Your task to perform on an android device: Empty the shopping cart on bestbuy.com. Search for razer kraken on bestbuy.com, select the first entry, add it to the cart, then select checkout. Image 0: 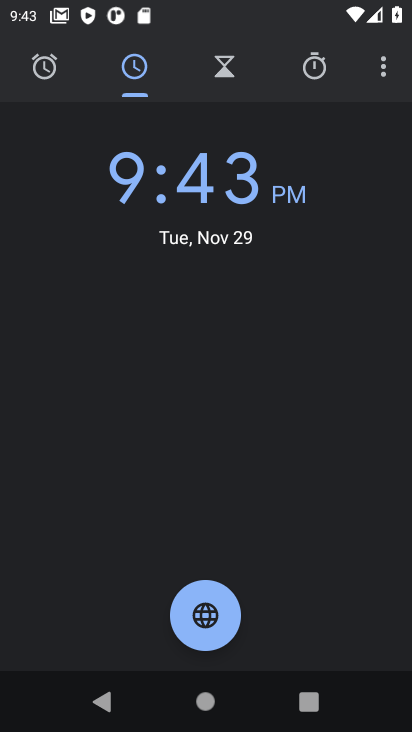
Step 0: press home button
Your task to perform on an android device: Empty the shopping cart on bestbuy.com. Search for razer kraken on bestbuy.com, select the first entry, add it to the cart, then select checkout. Image 1: 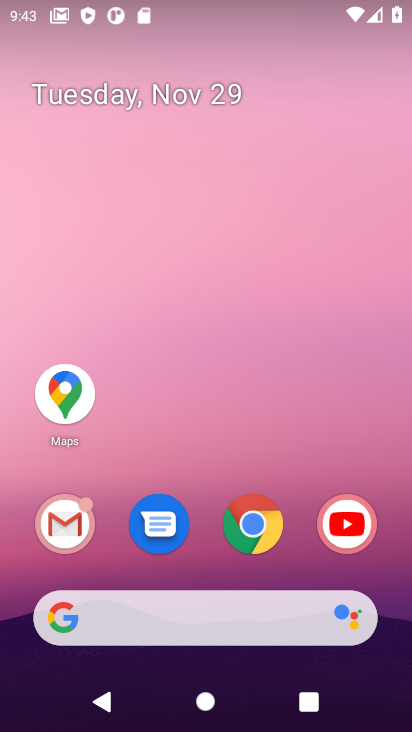
Step 1: click (258, 528)
Your task to perform on an android device: Empty the shopping cart on bestbuy.com. Search for razer kraken on bestbuy.com, select the first entry, add it to the cart, then select checkout. Image 2: 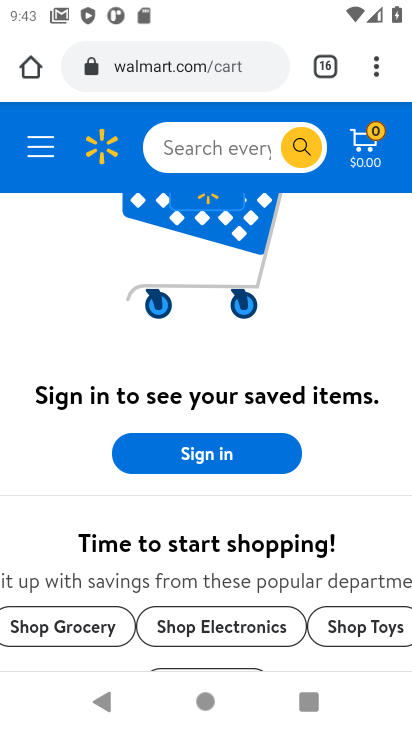
Step 2: click (167, 66)
Your task to perform on an android device: Empty the shopping cart on bestbuy.com. Search for razer kraken on bestbuy.com, select the first entry, add it to the cart, then select checkout. Image 3: 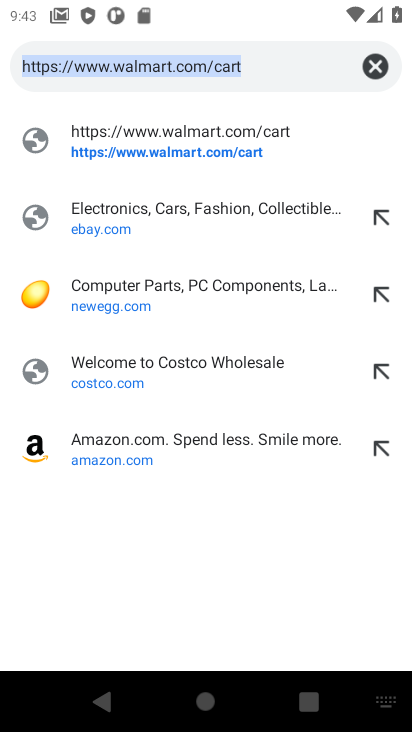
Step 3: type "bestbuy.com"
Your task to perform on an android device: Empty the shopping cart on bestbuy.com. Search for razer kraken on bestbuy.com, select the first entry, add it to the cart, then select checkout. Image 4: 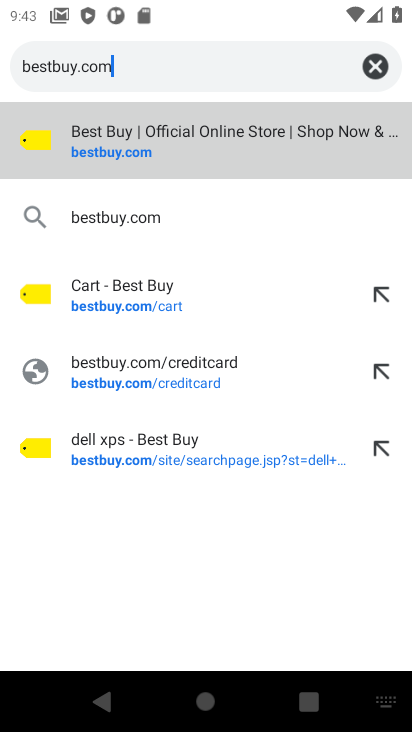
Step 4: click (95, 150)
Your task to perform on an android device: Empty the shopping cart on bestbuy.com. Search for razer kraken on bestbuy.com, select the first entry, add it to the cart, then select checkout. Image 5: 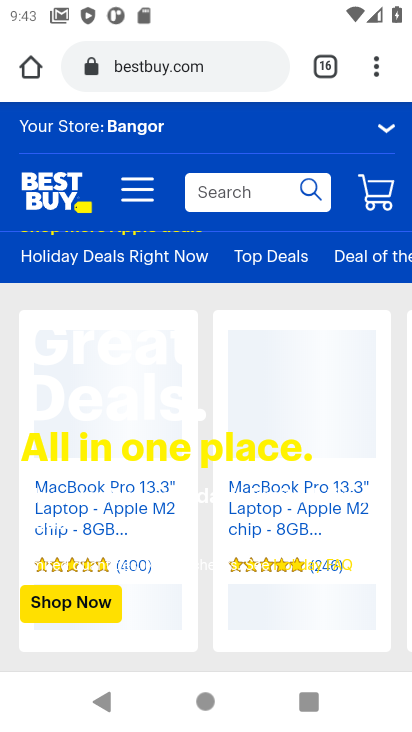
Step 5: click (383, 201)
Your task to perform on an android device: Empty the shopping cart on bestbuy.com. Search for razer kraken on bestbuy.com, select the first entry, add it to the cart, then select checkout. Image 6: 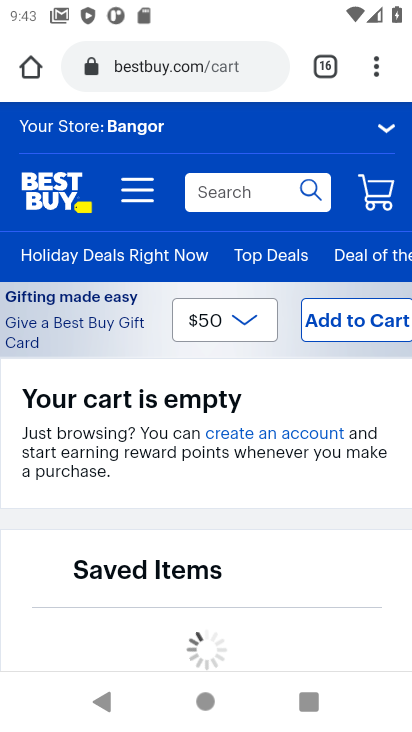
Step 6: drag from (281, 415) to (281, 370)
Your task to perform on an android device: Empty the shopping cart on bestbuy.com. Search for razer kraken on bestbuy.com, select the first entry, add it to the cart, then select checkout. Image 7: 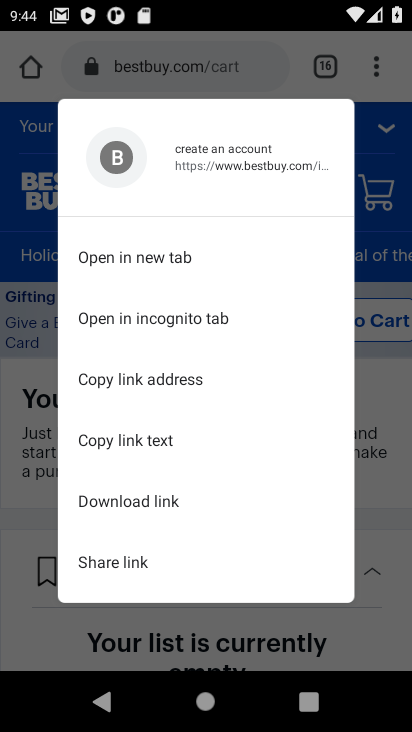
Step 7: drag from (391, 474) to (382, 331)
Your task to perform on an android device: Empty the shopping cart on bestbuy.com. Search for razer kraken on bestbuy.com, select the first entry, add it to the cart, then select checkout. Image 8: 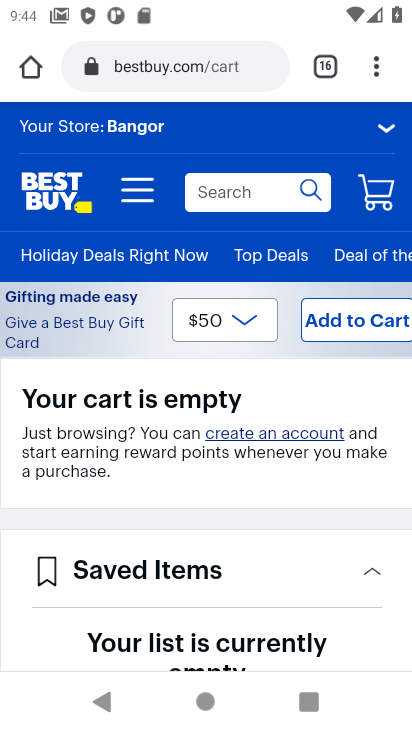
Step 8: click (223, 197)
Your task to perform on an android device: Empty the shopping cart on bestbuy.com. Search for razer kraken on bestbuy.com, select the first entry, add it to the cart, then select checkout. Image 9: 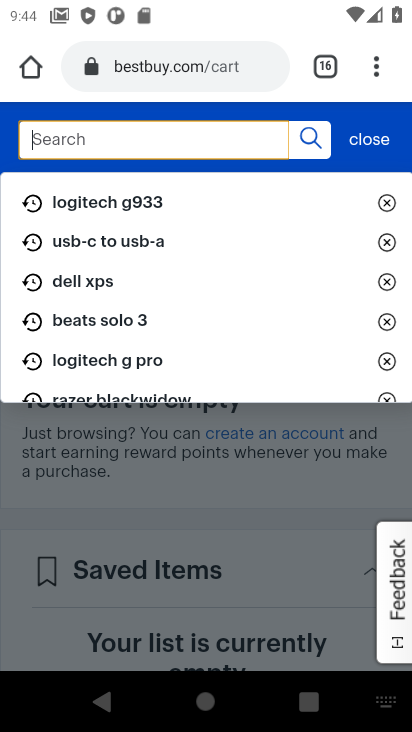
Step 9: type " razer kraken"
Your task to perform on an android device: Empty the shopping cart on bestbuy.com. Search for razer kraken on bestbuy.com, select the first entry, add it to the cart, then select checkout. Image 10: 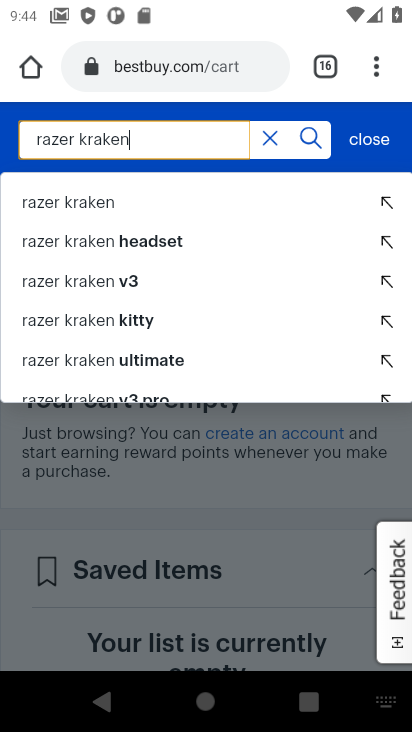
Step 10: click (83, 208)
Your task to perform on an android device: Empty the shopping cart on bestbuy.com. Search for razer kraken on bestbuy.com, select the first entry, add it to the cart, then select checkout. Image 11: 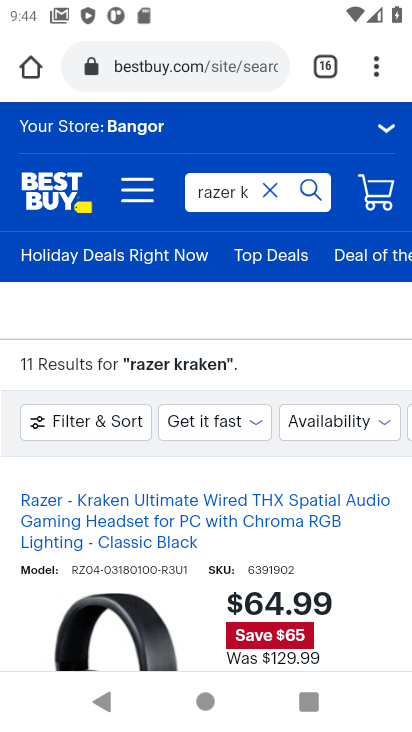
Step 11: drag from (246, 536) to (243, 367)
Your task to perform on an android device: Empty the shopping cart on bestbuy.com. Search for razer kraken on bestbuy.com, select the first entry, add it to the cart, then select checkout. Image 12: 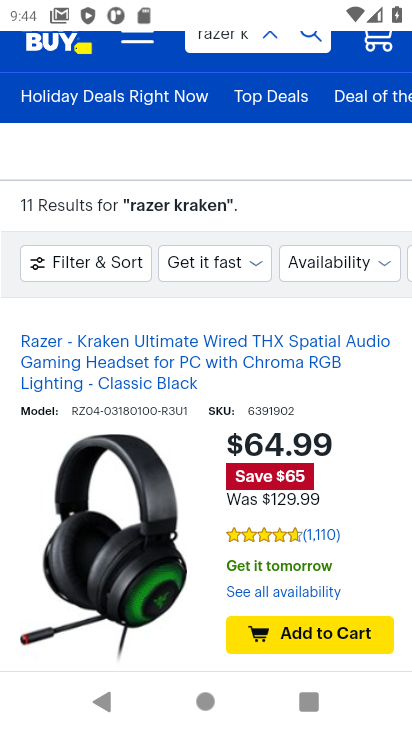
Step 12: drag from (195, 485) to (182, 322)
Your task to perform on an android device: Empty the shopping cart on bestbuy.com. Search for razer kraken on bestbuy.com, select the first entry, add it to the cart, then select checkout. Image 13: 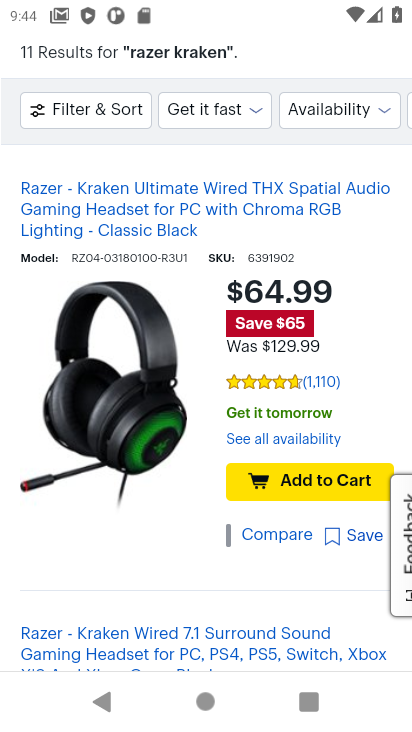
Step 13: click (289, 484)
Your task to perform on an android device: Empty the shopping cart on bestbuy.com. Search for razer kraken on bestbuy.com, select the first entry, add it to the cart, then select checkout. Image 14: 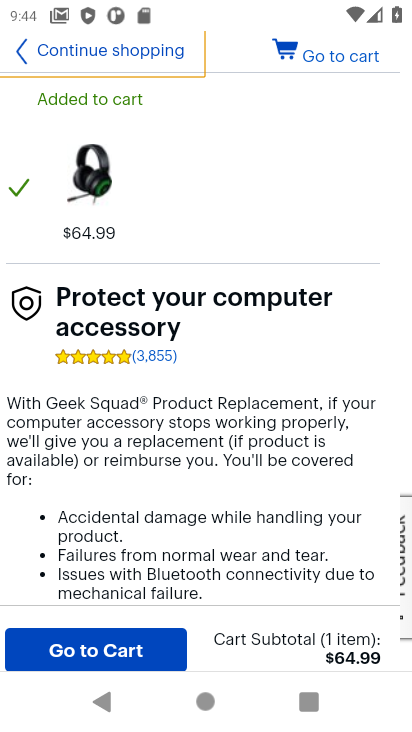
Step 14: click (333, 63)
Your task to perform on an android device: Empty the shopping cart on bestbuy.com. Search for razer kraken on bestbuy.com, select the first entry, add it to the cart, then select checkout. Image 15: 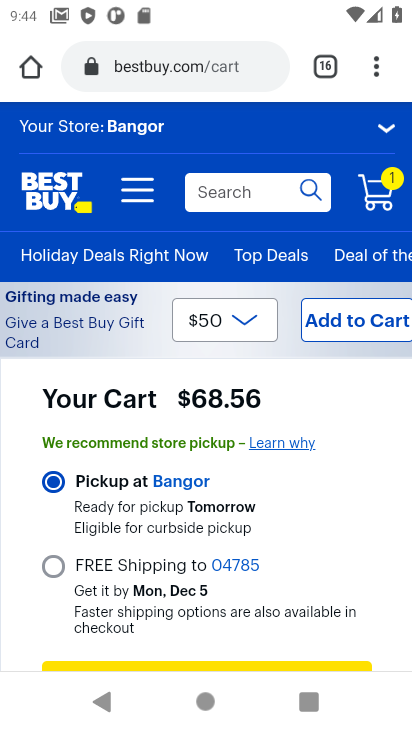
Step 15: drag from (334, 504) to (325, 266)
Your task to perform on an android device: Empty the shopping cart on bestbuy.com. Search for razer kraken on bestbuy.com, select the first entry, add it to the cart, then select checkout. Image 16: 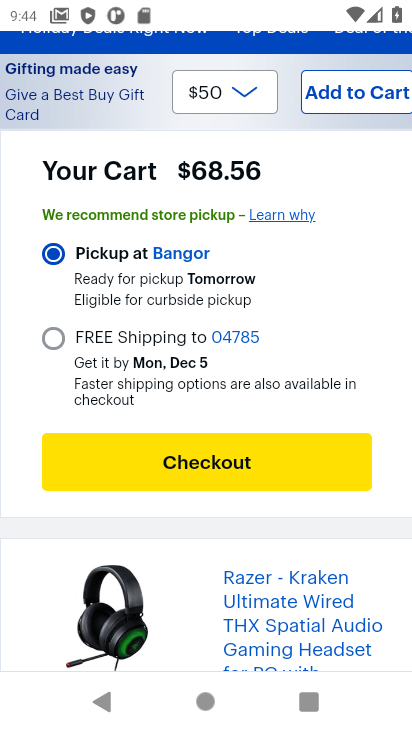
Step 16: click (222, 456)
Your task to perform on an android device: Empty the shopping cart on bestbuy.com. Search for razer kraken on bestbuy.com, select the first entry, add it to the cart, then select checkout. Image 17: 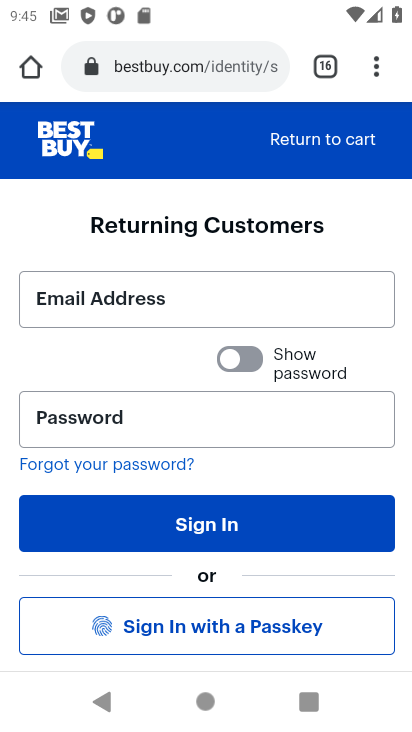
Step 17: task complete